Your task to perform on an android device: toggle priority inbox in the gmail app Image 0: 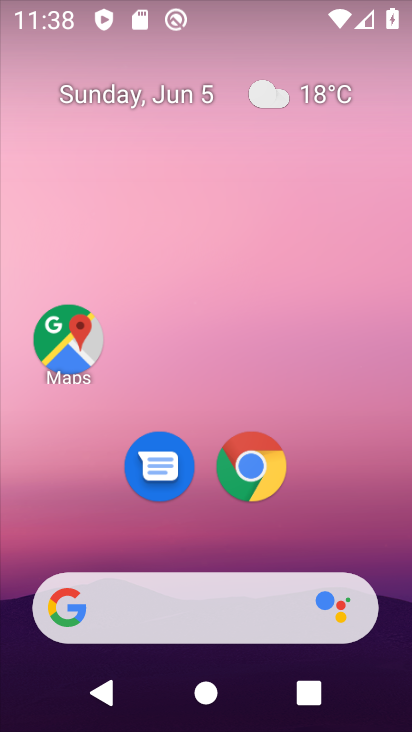
Step 0: drag from (375, 558) to (234, 19)
Your task to perform on an android device: toggle priority inbox in the gmail app Image 1: 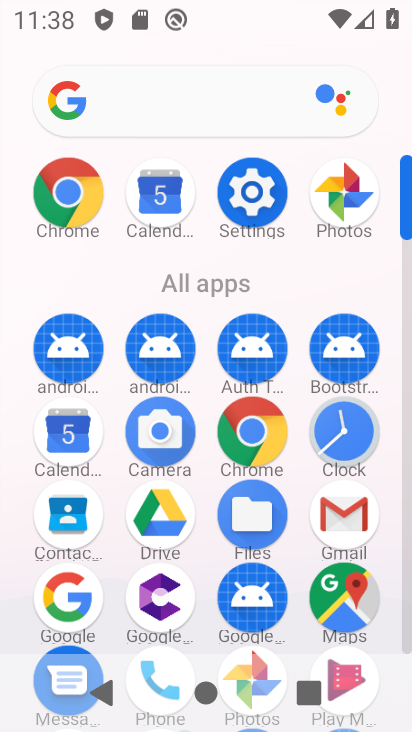
Step 1: drag from (11, 602) to (15, 274)
Your task to perform on an android device: toggle priority inbox in the gmail app Image 2: 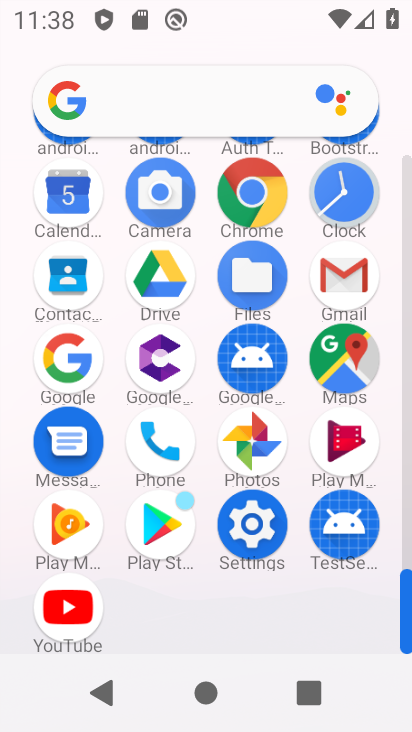
Step 2: click (344, 266)
Your task to perform on an android device: toggle priority inbox in the gmail app Image 3: 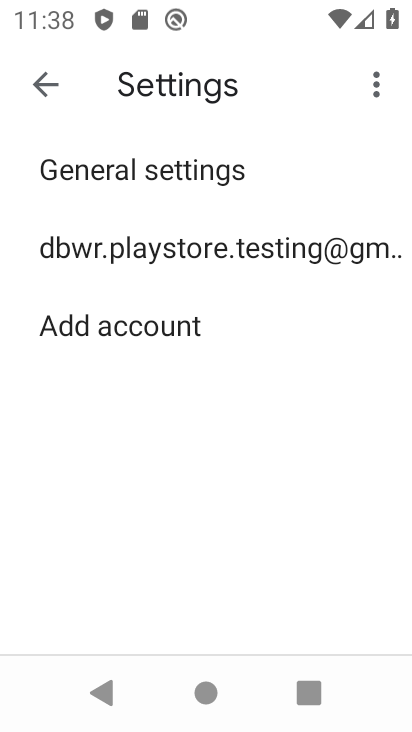
Step 3: click (45, 84)
Your task to perform on an android device: toggle priority inbox in the gmail app Image 4: 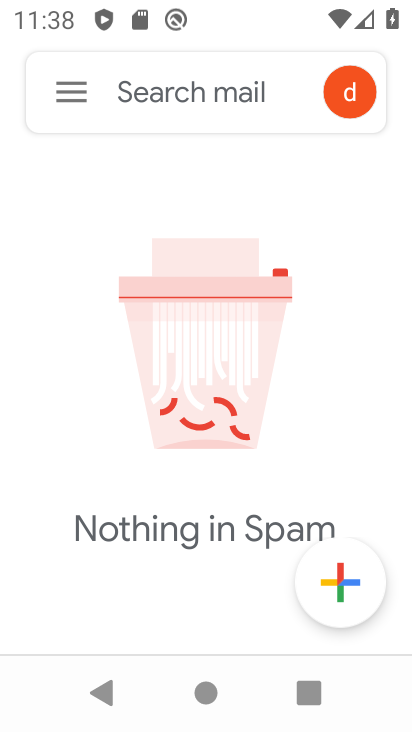
Step 4: click (72, 91)
Your task to perform on an android device: toggle priority inbox in the gmail app Image 5: 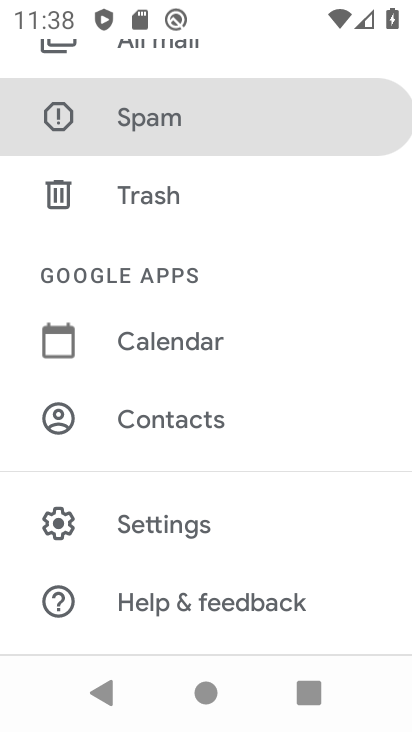
Step 5: click (167, 530)
Your task to perform on an android device: toggle priority inbox in the gmail app Image 6: 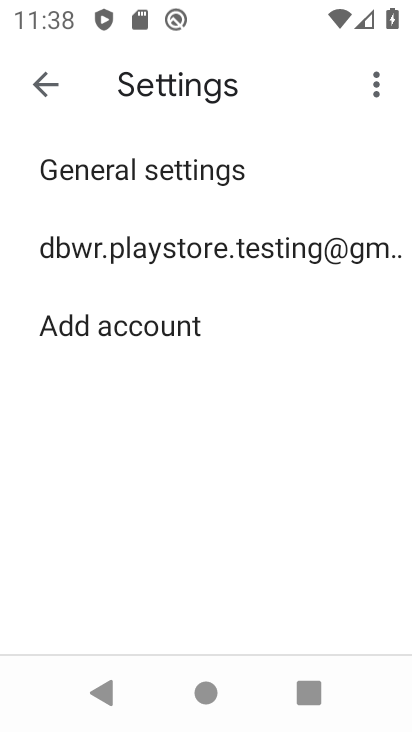
Step 6: click (191, 251)
Your task to perform on an android device: toggle priority inbox in the gmail app Image 7: 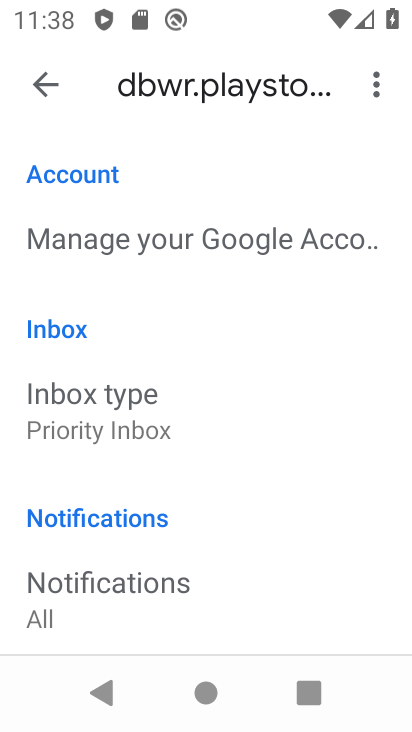
Step 7: task complete